Your task to perform on an android device: Show me popular videos on Youtube Image 0: 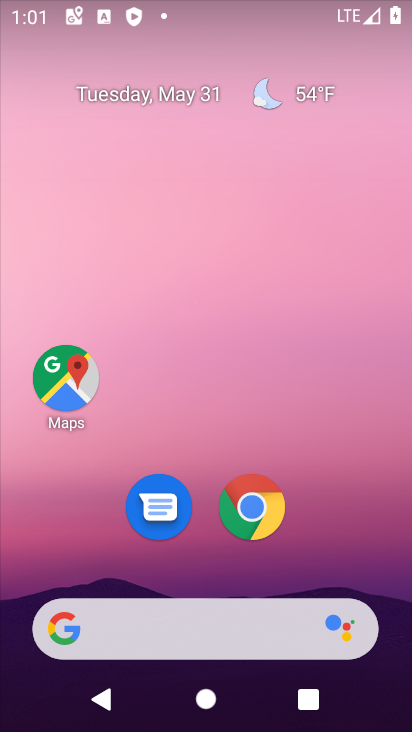
Step 0: drag from (405, 621) to (288, 31)
Your task to perform on an android device: Show me popular videos on Youtube Image 1: 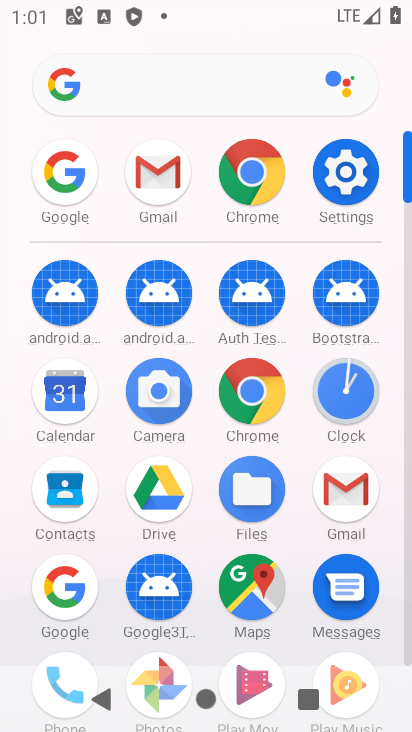
Step 1: drag from (322, 609) to (285, 136)
Your task to perform on an android device: Show me popular videos on Youtube Image 2: 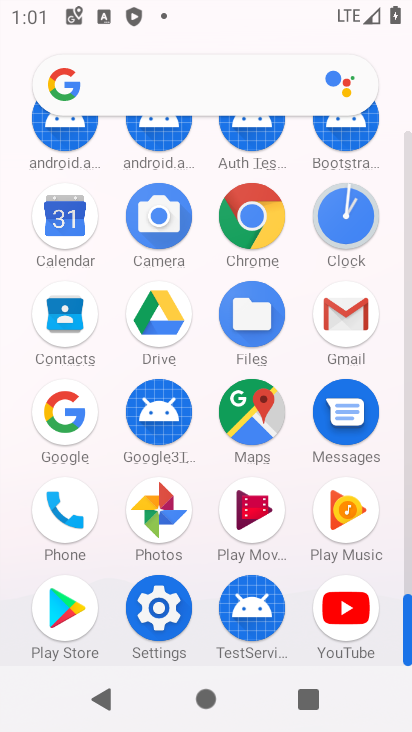
Step 2: click (345, 592)
Your task to perform on an android device: Show me popular videos on Youtube Image 3: 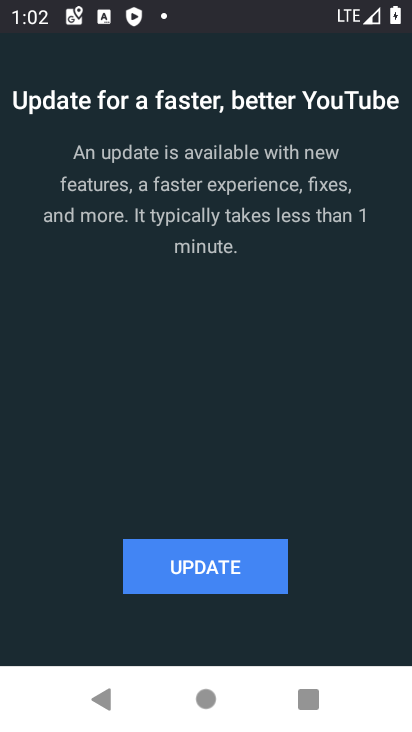
Step 3: click (243, 562)
Your task to perform on an android device: Show me popular videos on Youtube Image 4: 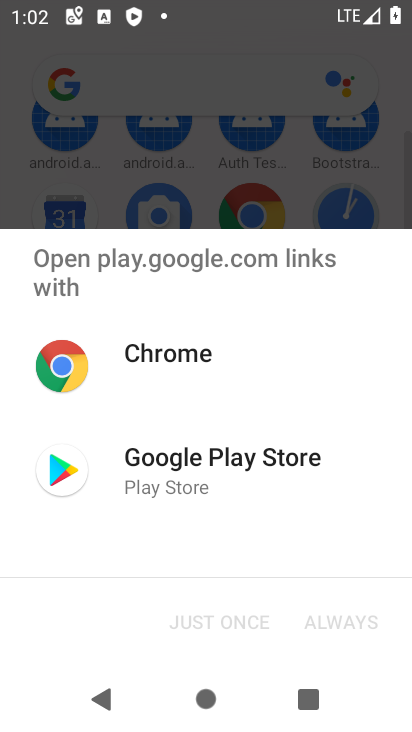
Step 4: click (117, 476)
Your task to perform on an android device: Show me popular videos on Youtube Image 5: 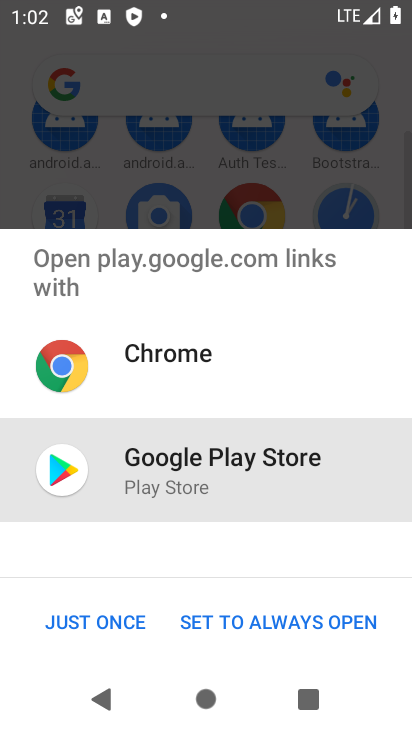
Step 5: drag from (102, 619) to (138, 619)
Your task to perform on an android device: Show me popular videos on Youtube Image 6: 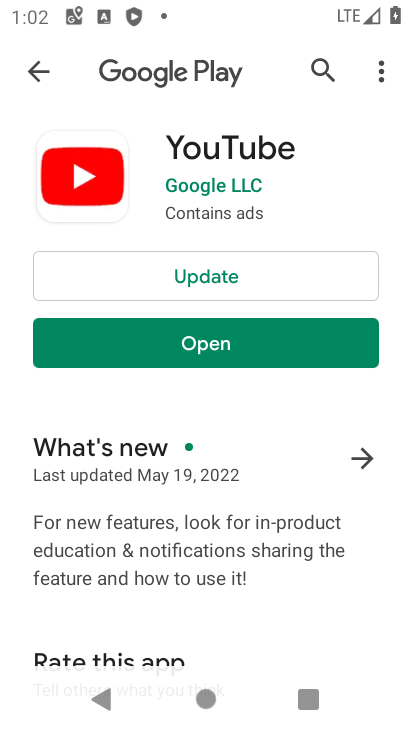
Step 6: click (233, 291)
Your task to perform on an android device: Show me popular videos on Youtube Image 7: 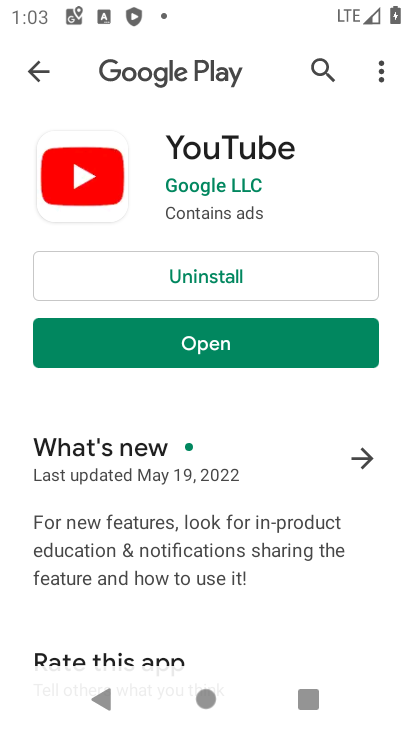
Step 7: click (292, 335)
Your task to perform on an android device: Show me popular videos on Youtube Image 8: 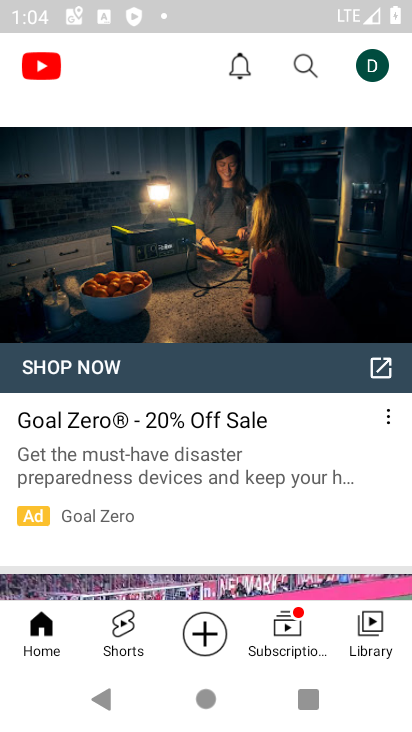
Step 8: task complete